Your task to perform on an android device: set the timer Image 0: 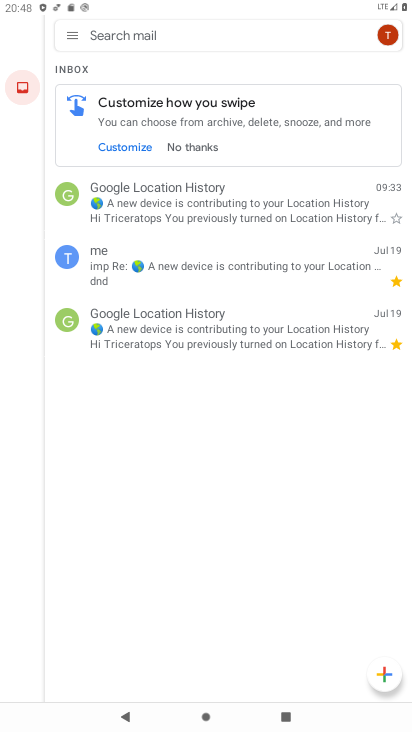
Step 0: press home button
Your task to perform on an android device: set the timer Image 1: 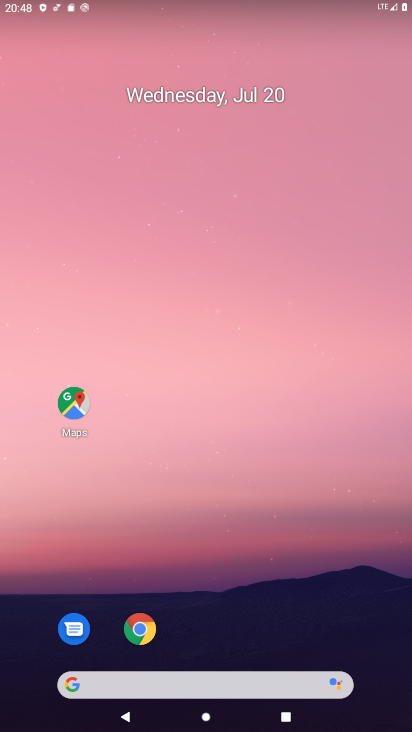
Step 1: drag from (205, 630) to (195, 119)
Your task to perform on an android device: set the timer Image 2: 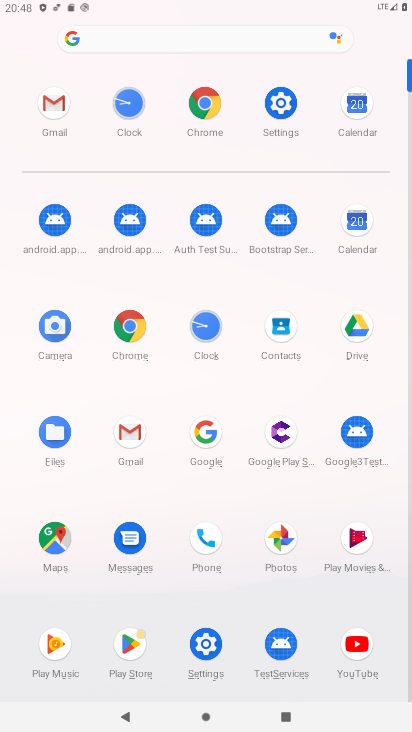
Step 2: click (192, 346)
Your task to perform on an android device: set the timer Image 3: 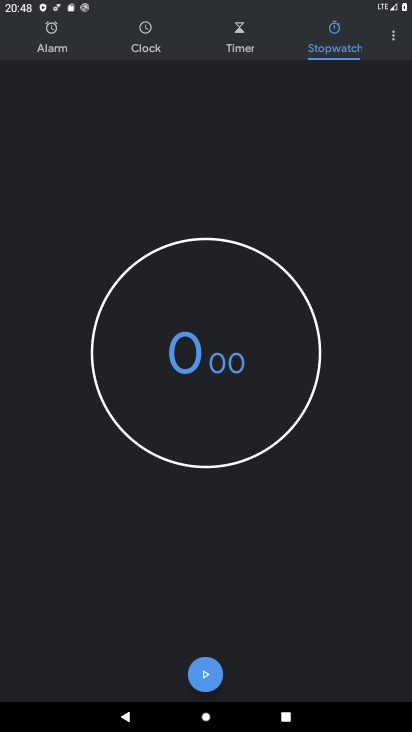
Step 3: click (215, 34)
Your task to perform on an android device: set the timer Image 4: 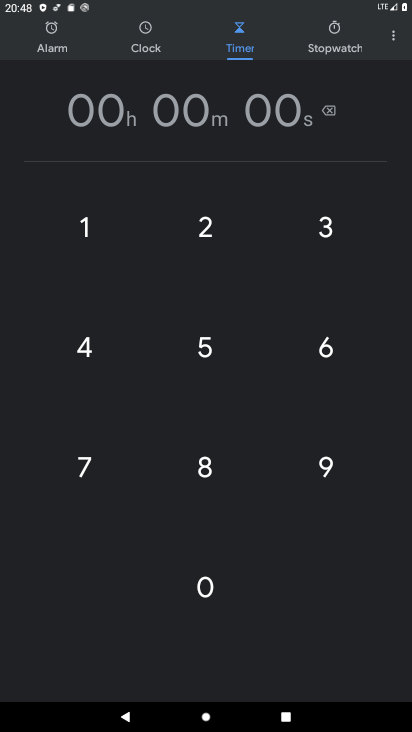
Step 4: type "11"
Your task to perform on an android device: set the timer Image 5: 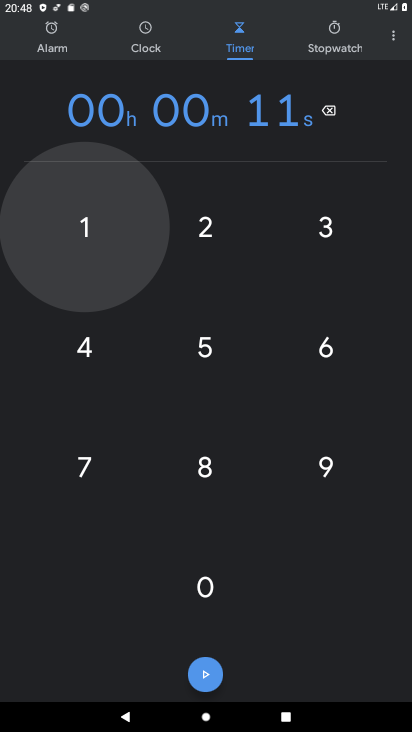
Step 5: click (204, 681)
Your task to perform on an android device: set the timer Image 6: 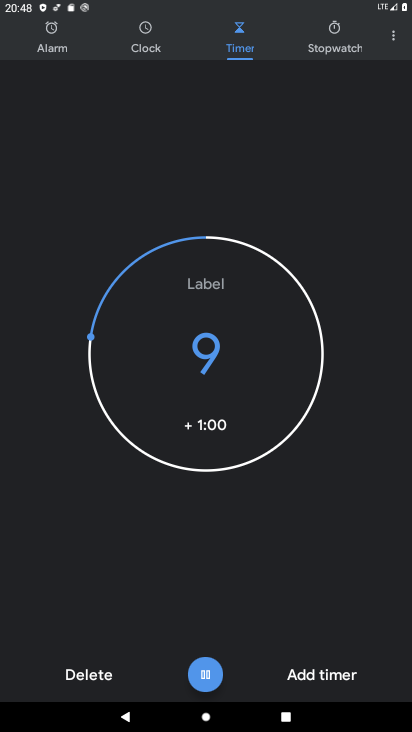
Step 6: task complete